Your task to perform on an android device: toggle notifications settings in the gmail app Image 0: 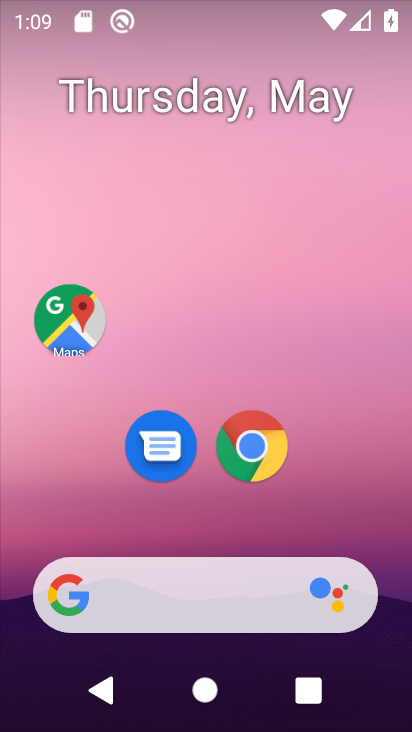
Step 0: drag from (211, 523) to (243, 146)
Your task to perform on an android device: toggle notifications settings in the gmail app Image 1: 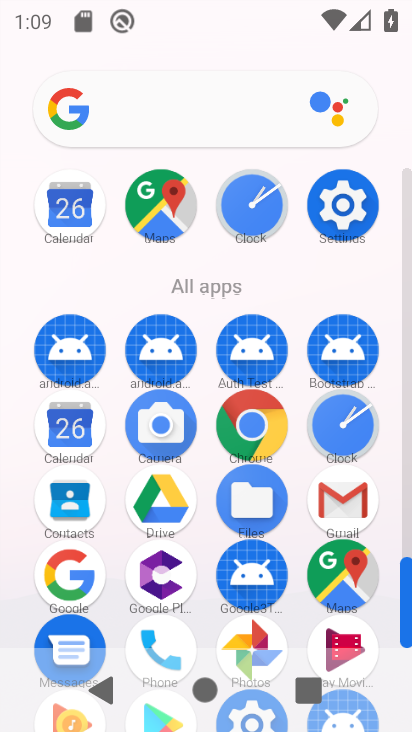
Step 1: click (353, 509)
Your task to perform on an android device: toggle notifications settings in the gmail app Image 2: 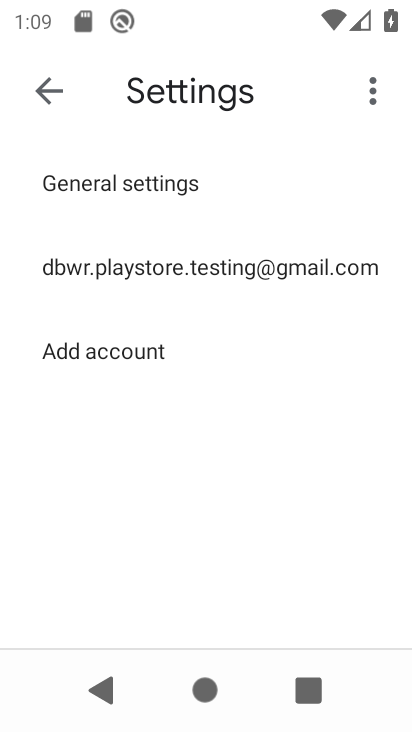
Step 2: click (148, 158)
Your task to perform on an android device: toggle notifications settings in the gmail app Image 3: 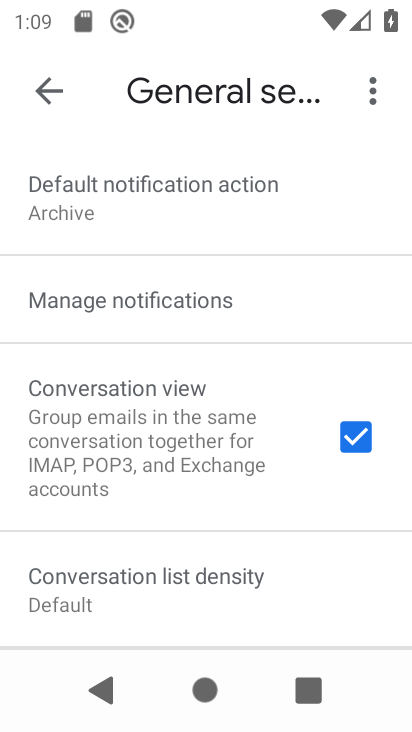
Step 3: click (167, 287)
Your task to perform on an android device: toggle notifications settings in the gmail app Image 4: 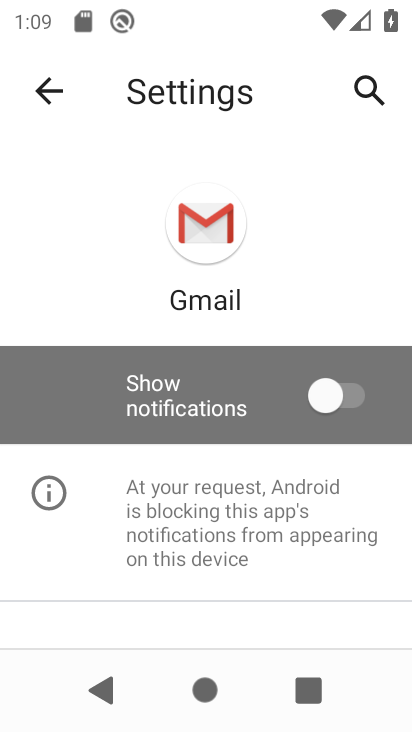
Step 4: click (363, 391)
Your task to perform on an android device: toggle notifications settings in the gmail app Image 5: 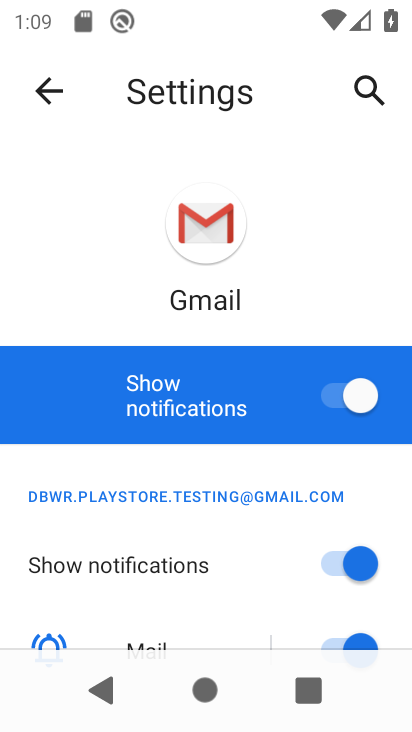
Step 5: task complete